Your task to perform on an android device: Go to Amazon Image 0: 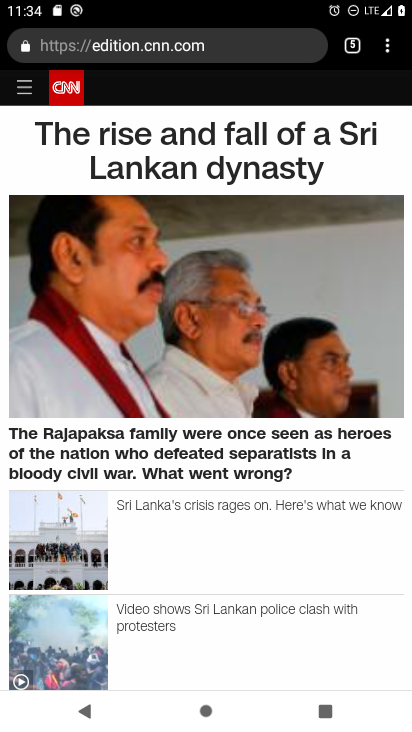
Step 0: press home button
Your task to perform on an android device: Go to Amazon Image 1: 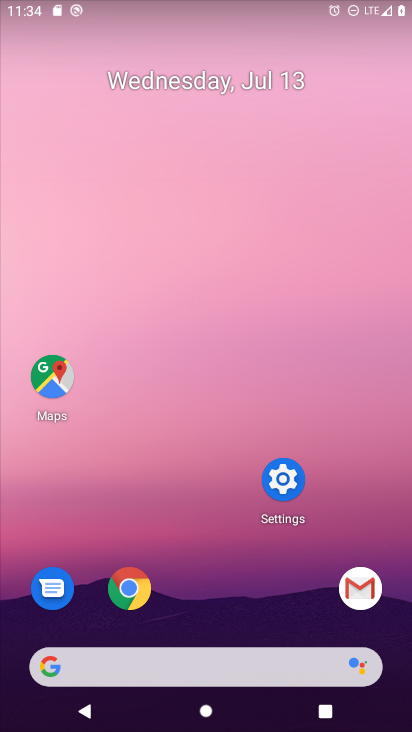
Step 1: click (118, 585)
Your task to perform on an android device: Go to Amazon Image 2: 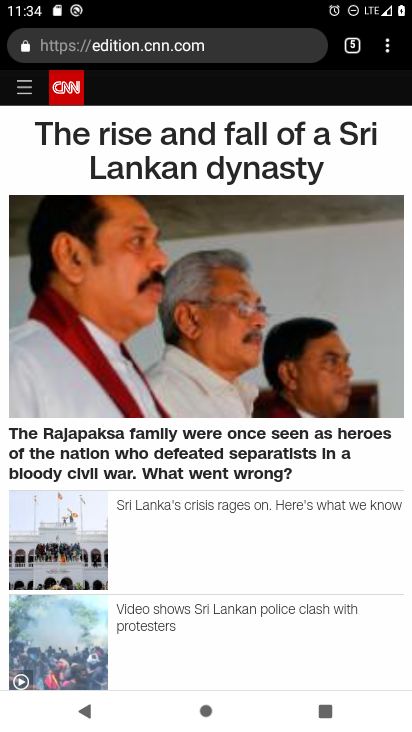
Step 2: click (357, 51)
Your task to perform on an android device: Go to Amazon Image 3: 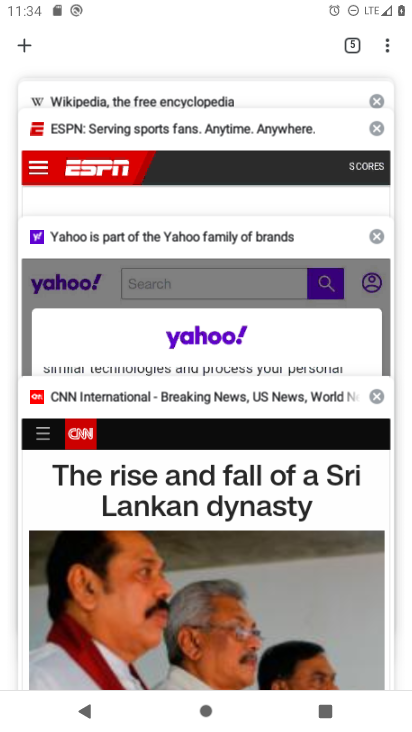
Step 3: click (24, 46)
Your task to perform on an android device: Go to Amazon Image 4: 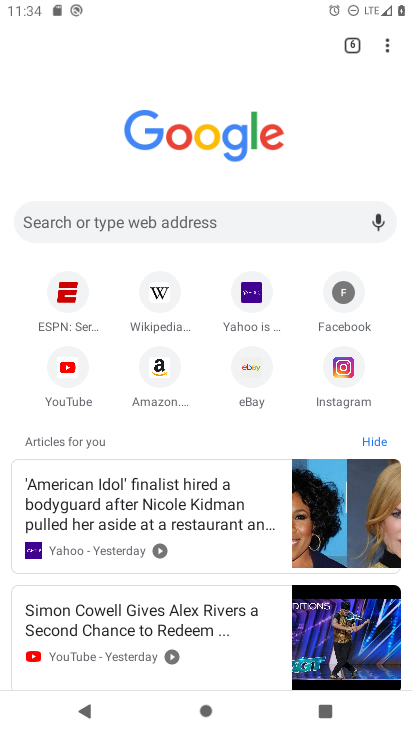
Step 4: click (169, 366)
Your task to perform on an android device: Go to Amazon Image 5: 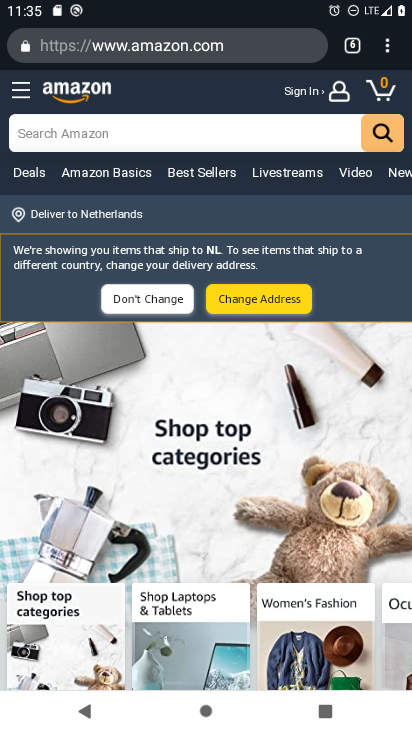
Step 5: task complete